Your task to perform on an android device: remove spam from my inbox in the gmail app Image 0: 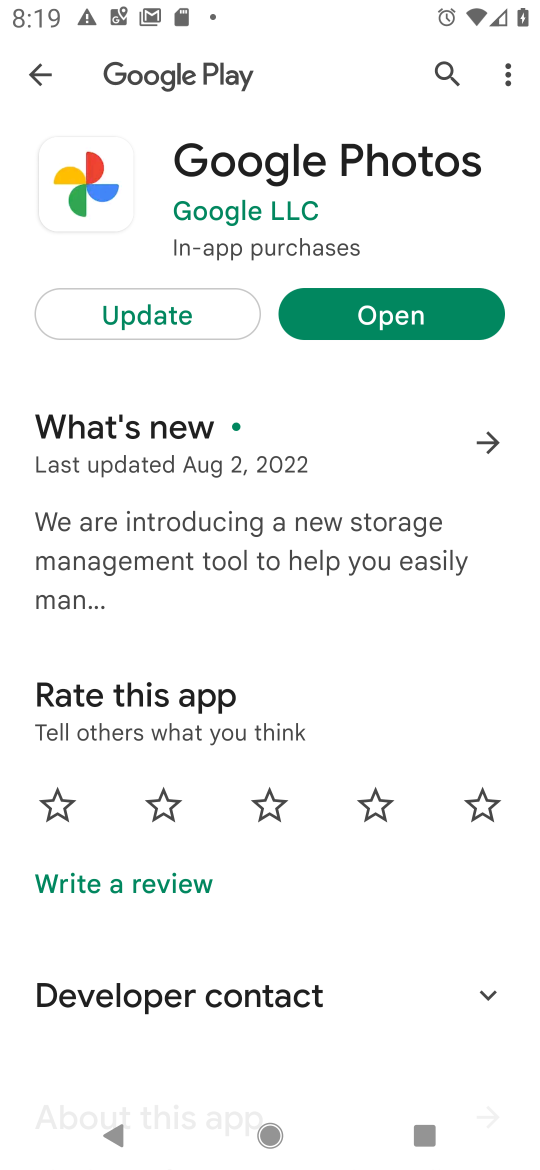
Step 0: press home button
Your task to perform on an android device: remove spam from my inbox in the gmail app Image 1: 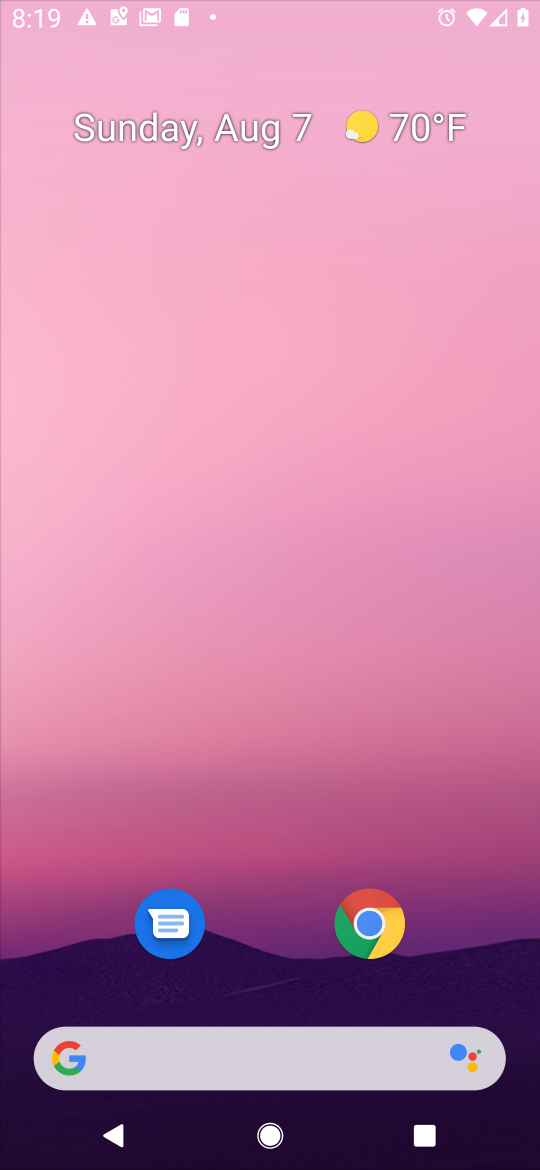
Step 1: drag from (493, 943) to (214, 29)
Your task to perform on an android device: remove spam from my inbox in the gmail app Image 2: 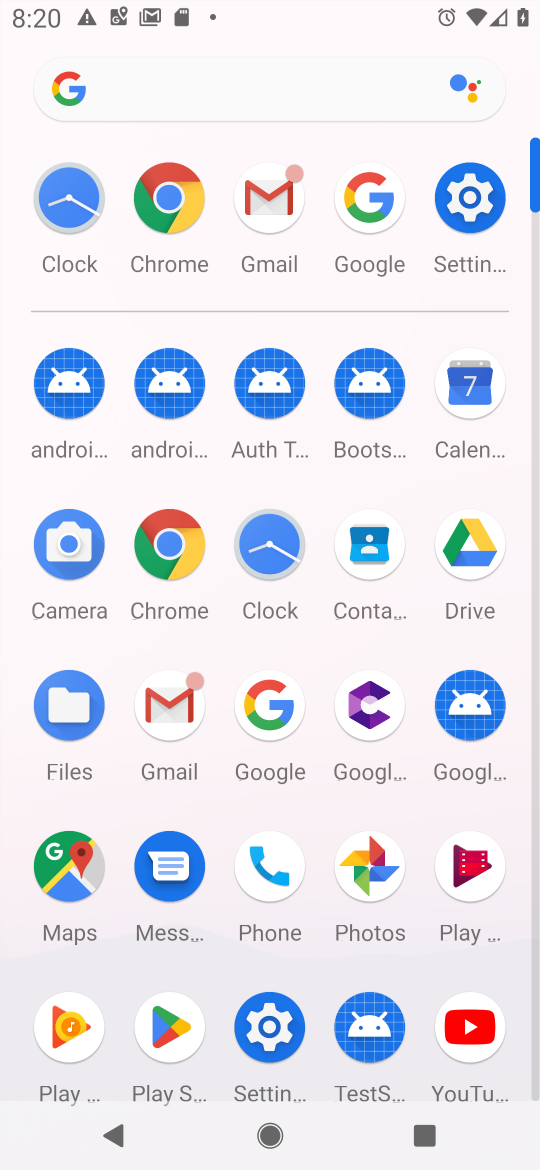
Step 2: click (181, 720)
Your task to perform on an android device: remove spam from my inbox in the gmail app Image 3: 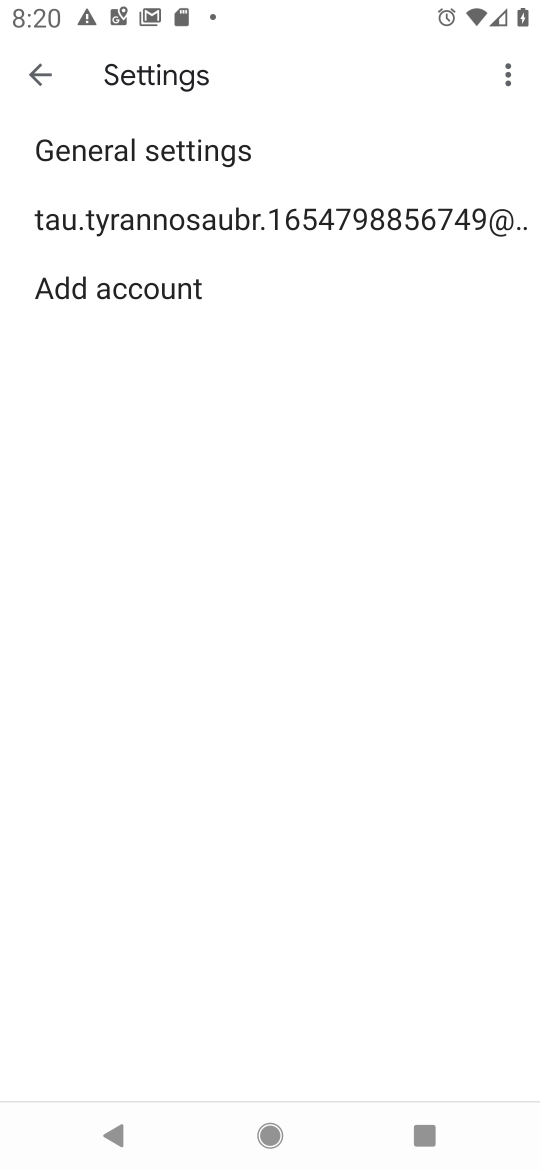
Step 3: task complete